Your task to perform on an android device: turn off notifications settings in the gmail app Image 0: 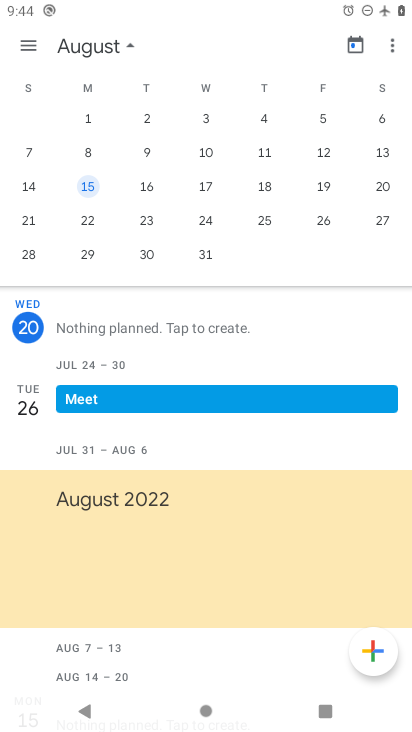
Step 0: press home button
Your task to perform on an android device: turn off notifications settings in the gmail app Image 1: 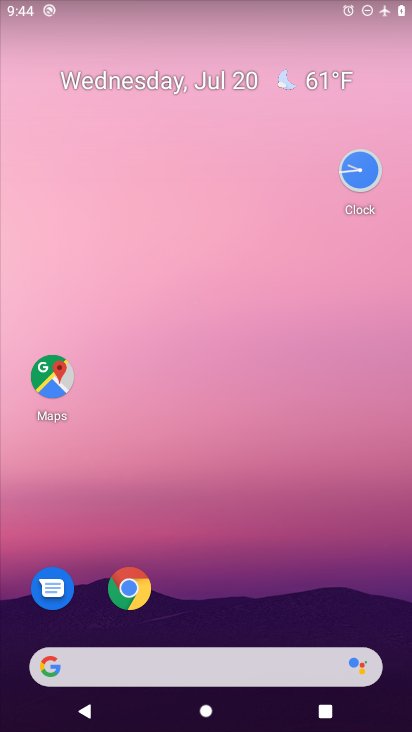
Step 1: drag from (22, 705) to (268, 84)
Your task to perform on an android device: turn off notifications settings in the gmail app Image 2: 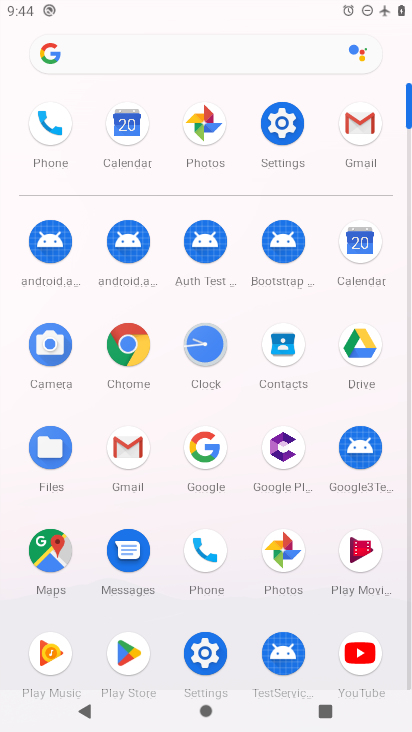
Step 2: click (137, 454)
Your task to perform on an android device: turn off notifications settings in the gmail app Image 3: 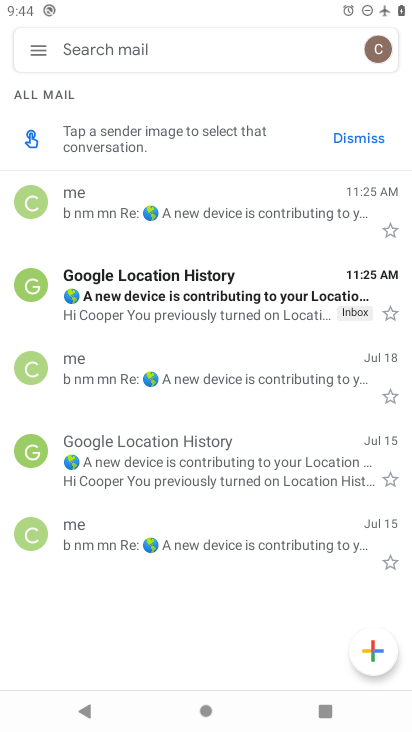
Step 3: click (42, 47)
Your task to perform on an android device: turn off notifications settings in the gmail app Image 4: 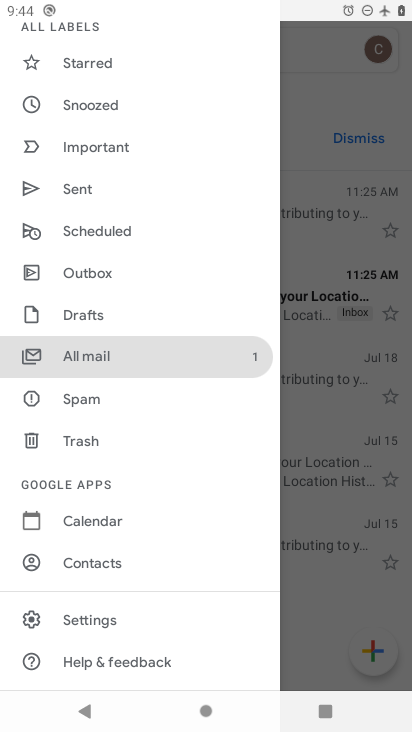
Step 4: click (80, 614)
Your task to perform on an android device: turn off notifications settings in the gmail app Image 5: 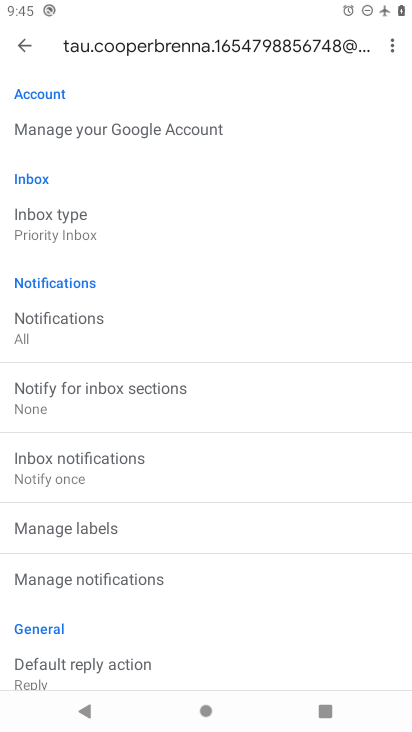
Step 5: click (13, 45)
Your task to perform on an android device: turn off notifications settings in the gmail app Image 6: 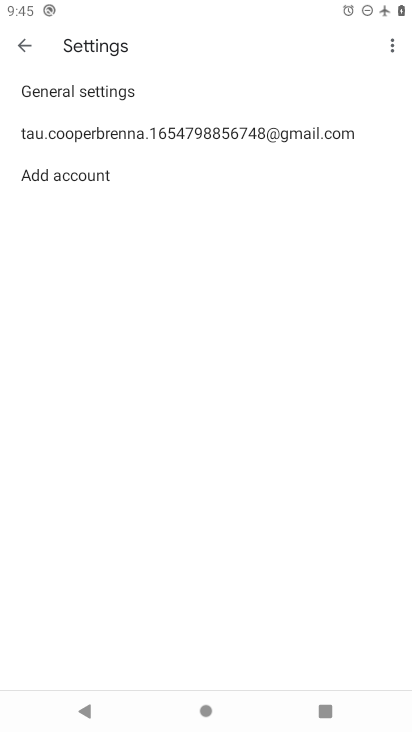
Step 6: click (71, 94)
Your task to perform on an android device: turn off notifications settings in the gmail app Image 7: 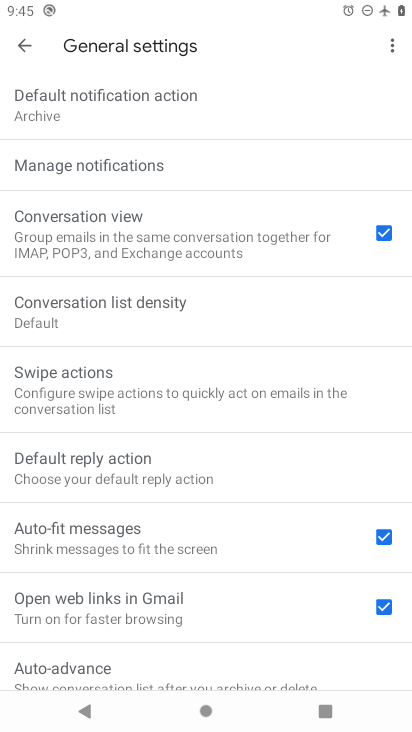
Step 7: click (65, 169)
Your task to perform on an android device: turn off notifications settings in the gmail app Image 8: 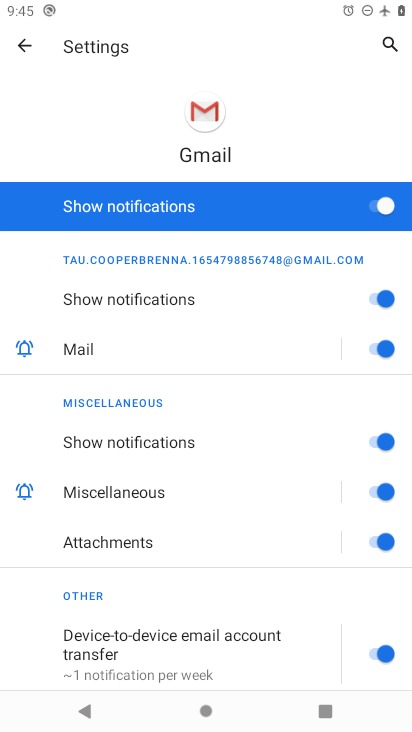
Step 8: click (378, 202)
Your task to perform on an android device: turn off notifications settings in the gmail app Image 9: 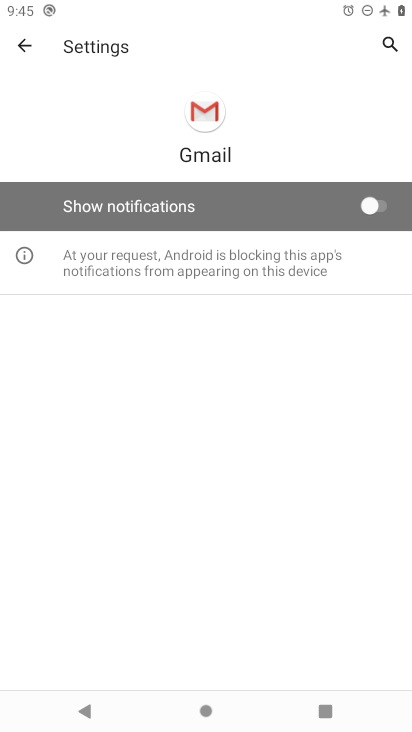
Step 9: task complete